Your task to perform on an android device: Show me popular games on the Play Store Image 0: 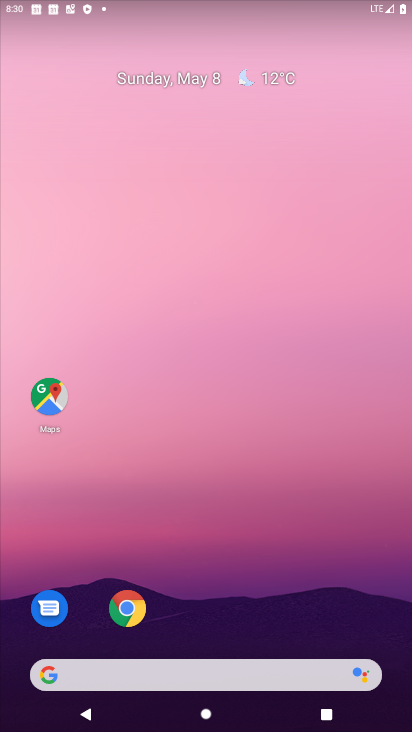
Step 0: drag from (331, 587) to (208, 0)
Your task to perform on an android device: Show me popular games on the Play Store Image 1: 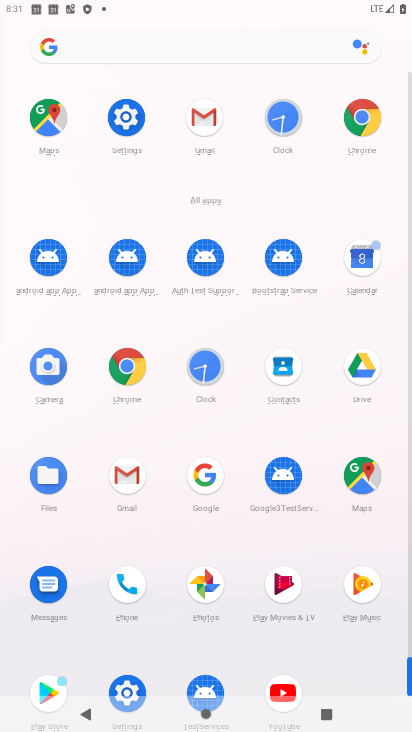
Step 1: click (46, 686)
Your task to perform on an android device: Show me popular games on the Play Store Image 2: 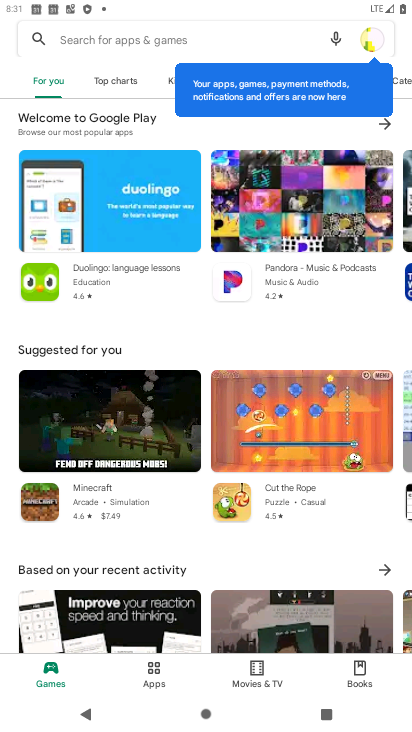
Step 2: click (150, 670)
Your task to perform on an android device: Show me popular games on the Play Store Image 3: 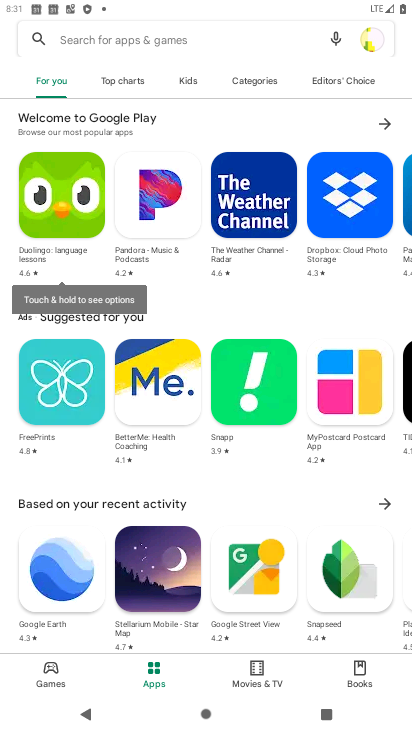
Step 3: click (48, 677)
Your task to perform on an android device: Show me popular games on the Play Store Image 4: 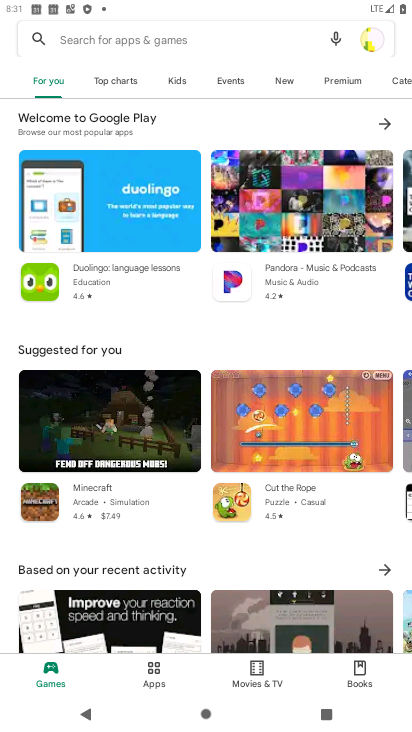
Step 4: click (398, 78)
Your task to perform on an android device: Show me popular games on the Play Store Image 5: 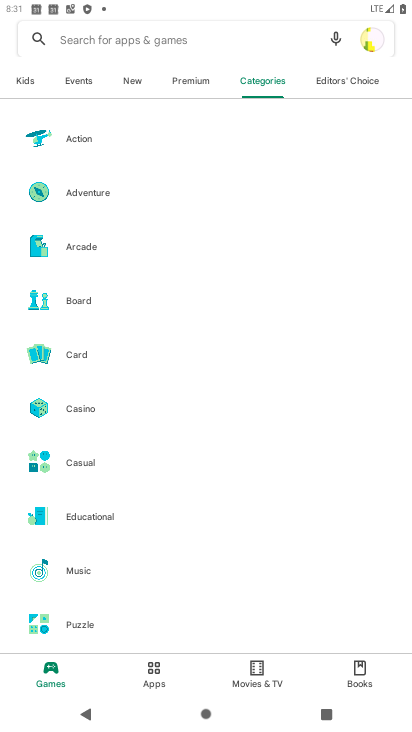
Step 5: drag from (151, 530) to (150, 148)
Your task to perform on an android device: Show me popular games on the Play Store Image 6: 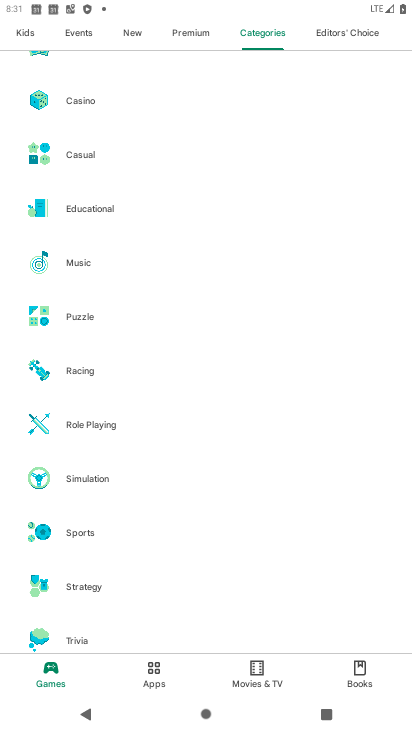
Step 6: drag from (150, 592) to (141, 111)
Your task to perform on an android device: Show me popular games on the Play Store Image 7: 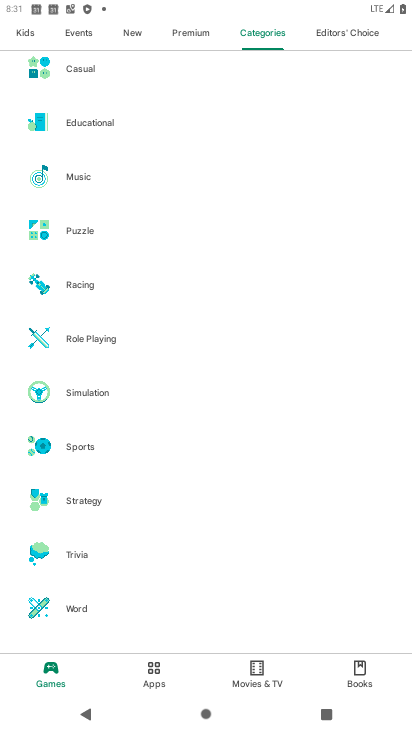
Step 7: click (33, 35)
Your task to perform on an android device: Show me popular games on the Play Store Image 8: 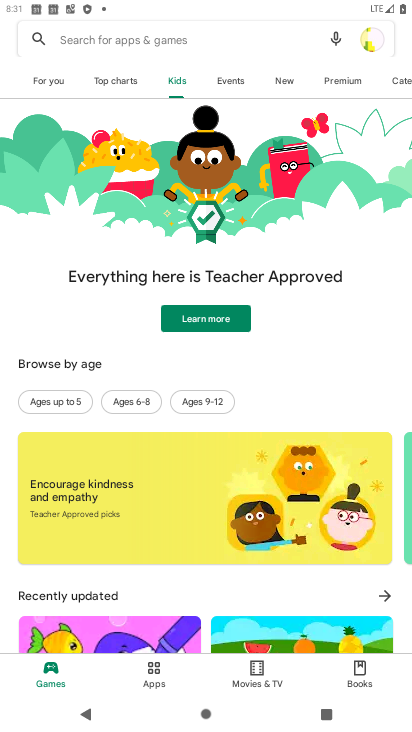
Step 8: drag from (267, 587) to (272, 188)
Your task to perform on an android device: Show me popular games on the Play Store Image 9: 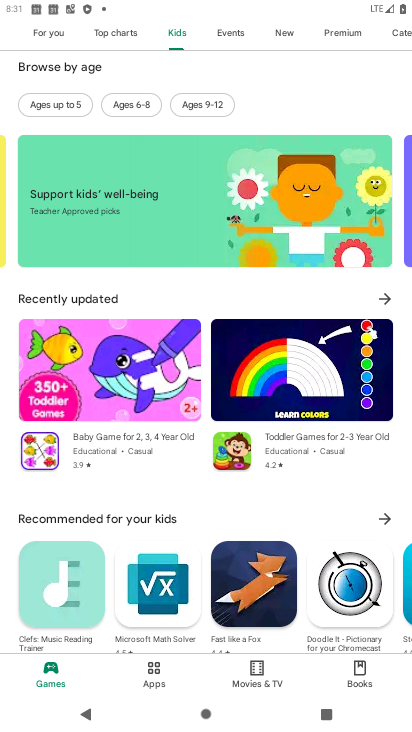
Step 9: drag from (245, 539) to (246, 199)
Your task to perform on an android device: Show me popular games on the Play Store Image 10: 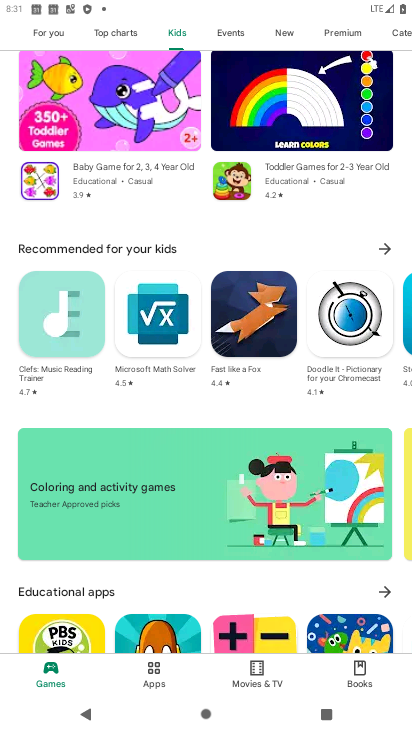
Step 10: drag from (253, 574) to (234, 203)
Your task to perform on an android device: Show me popular games on the Play Store Image 11: 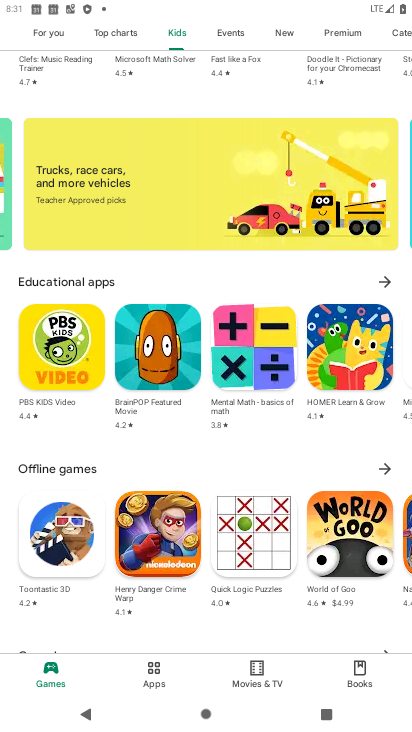
Step 11: drag from (223, 645) to (220, 272)
Your task to perform on an android device: Show me popular games on the Play Store Image 12: 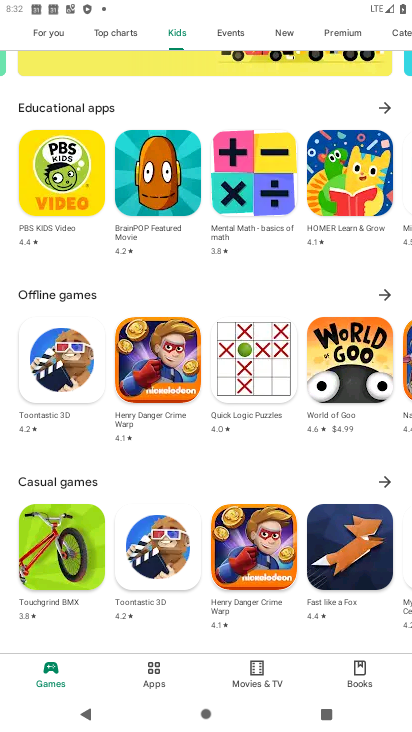
Step 12: drag from (292, 35) to (141, 38)
Your task to perform on an android device: Show me popular games on the Play Store Image 13: 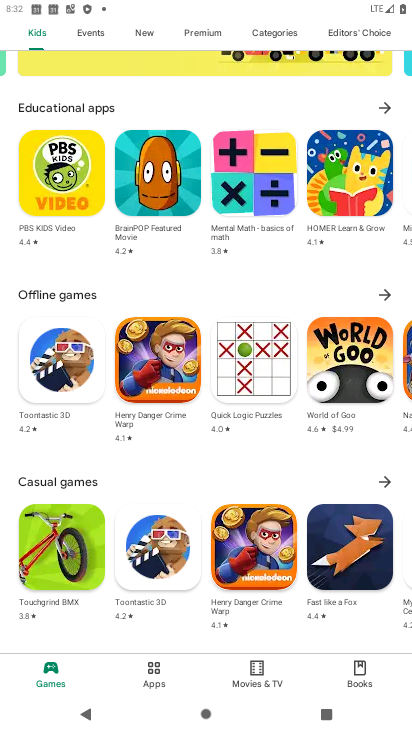
Step 13: drag from (282, 31) to (71, 23)
Your task to perform on an android device: Show me popular games on the Play Store Image 14: 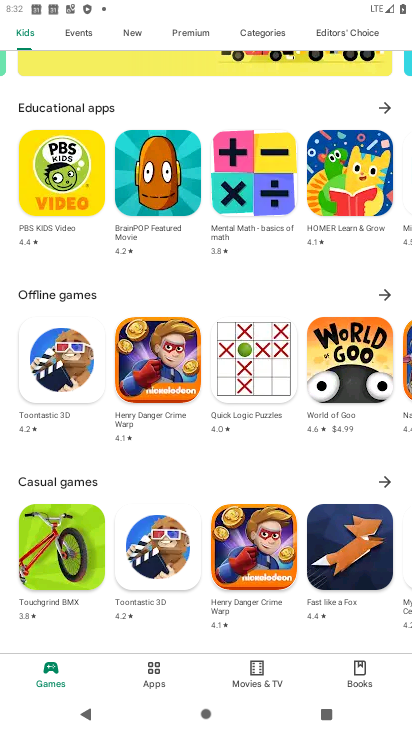
Step 14: click (258, 29)
Your task to perform on an android device: Show me popular games on the Play Store Image 15: 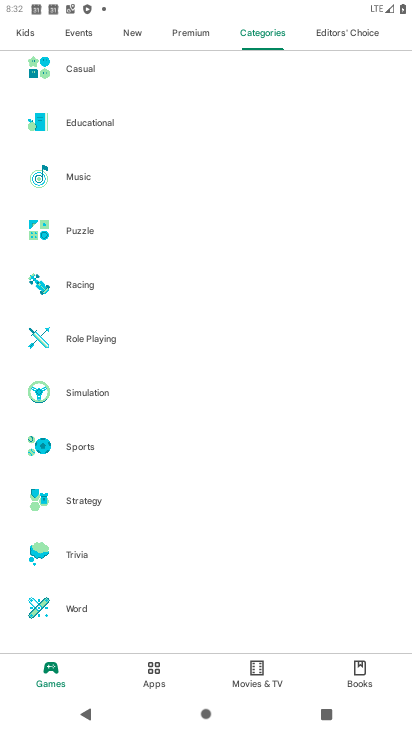
Step 15: drag from (207, 477) to (199, 98)
Your task to perform on an android device: Show me popular games on the Play Store Image 16: 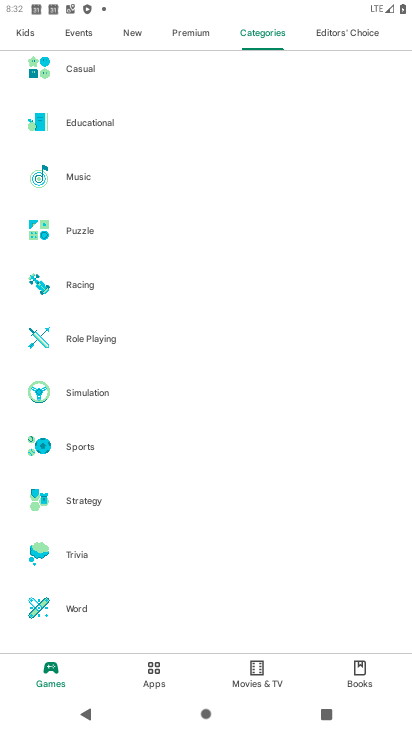
Step 16: drag from (198, 118) to (215, 587)
Your task to perform on an android device: Show me popular games on the Play Store Image 17: 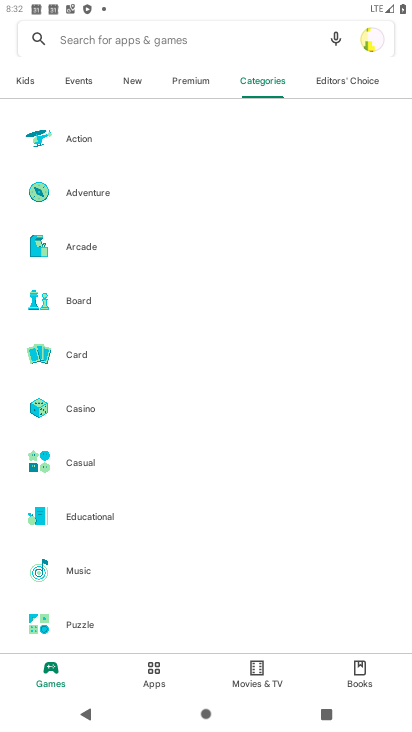
Step 17: drag from (181, 189) to (181, 641)
Your task to perform on an android device: Show me popular games on the Play Store Image 18: 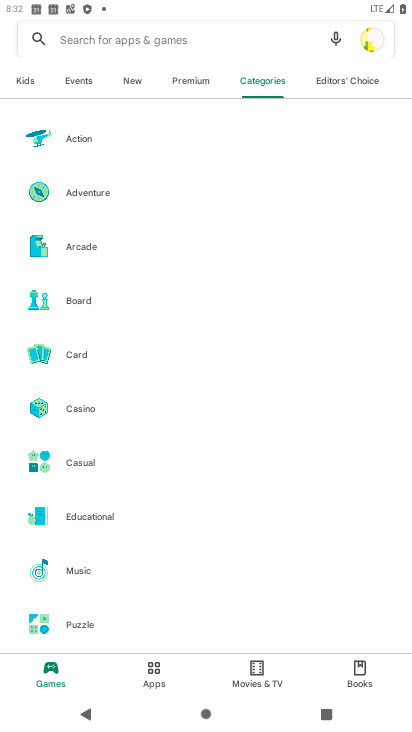
Step 18: drag from (61, 73) to (287, 81)
Your task to perform on an android device: Show me popular games on the Play Store Image 19: 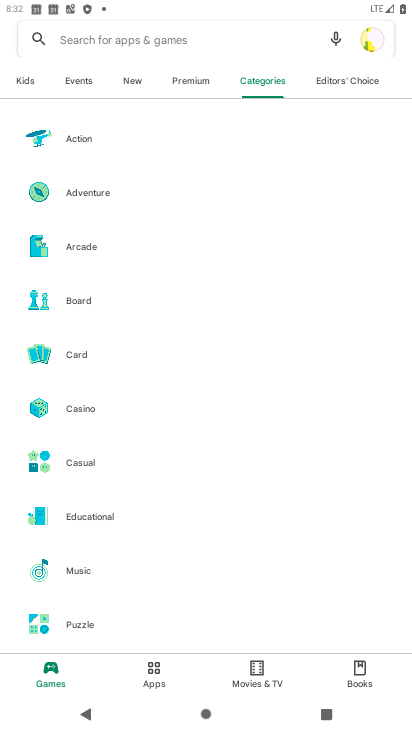
Step 19: click (17, 79)
Your task to perform on an android device: Show me popular games on the Play Store Image 20: 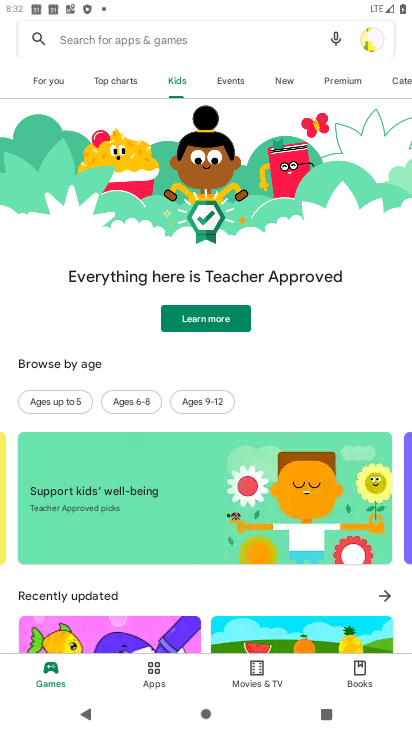
Step 20: click (36, 76)
Your task to perform on an android device: Show me popular games on the Play Store Image 21: 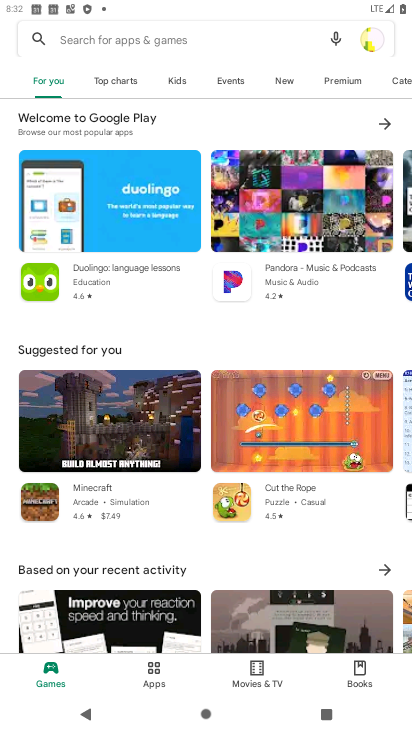
Step 21: drag from (225, 567) to (253, 155)
Your task to perform on an android device: Show me popular games on the Play Store Image 22: 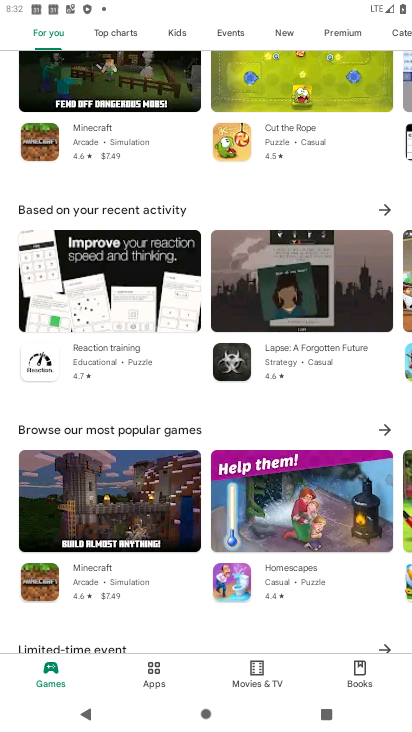
Step 22: drag from (177, 193) to (198, 496)
Your task to perform on an android device: Show me popular games on the Play Store Image 23: 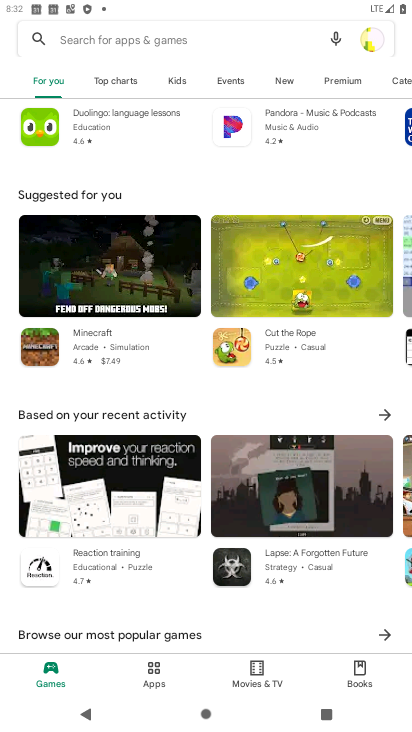
Step 23: click (108, 80)
Your task to perform on an android device: Show me popular games on the Play Store Image 24: 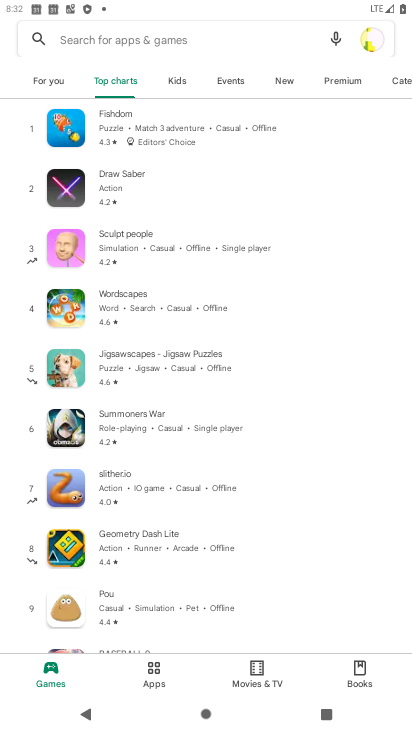
Step 24: task complete